Your task to perform on an android device: open chrome privacy settings Image 0: 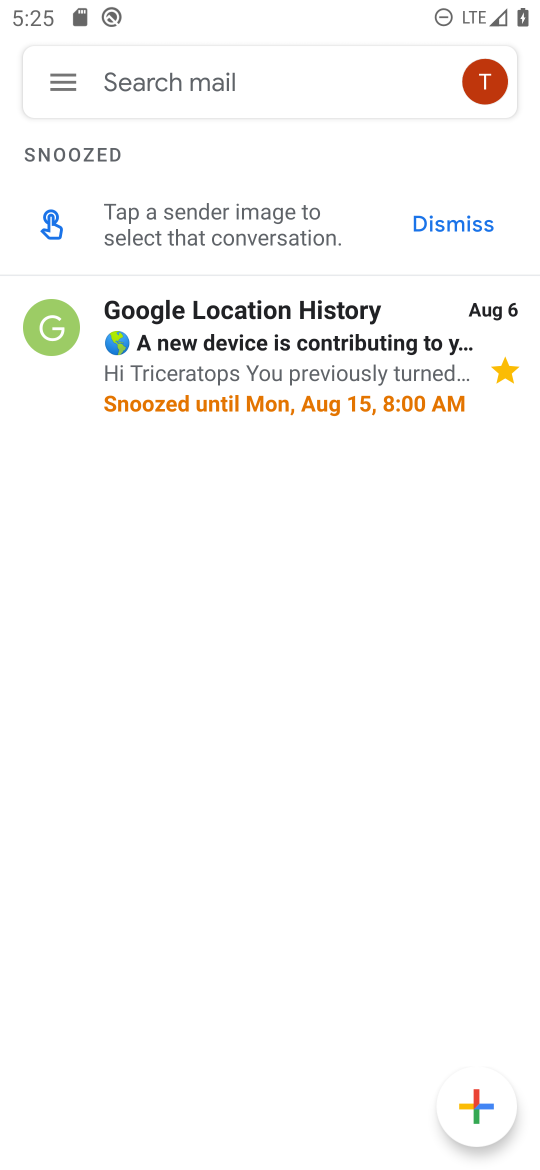
Step 0: press home button
Your task to perform on an android device: open chrome privacy settings Image 1: 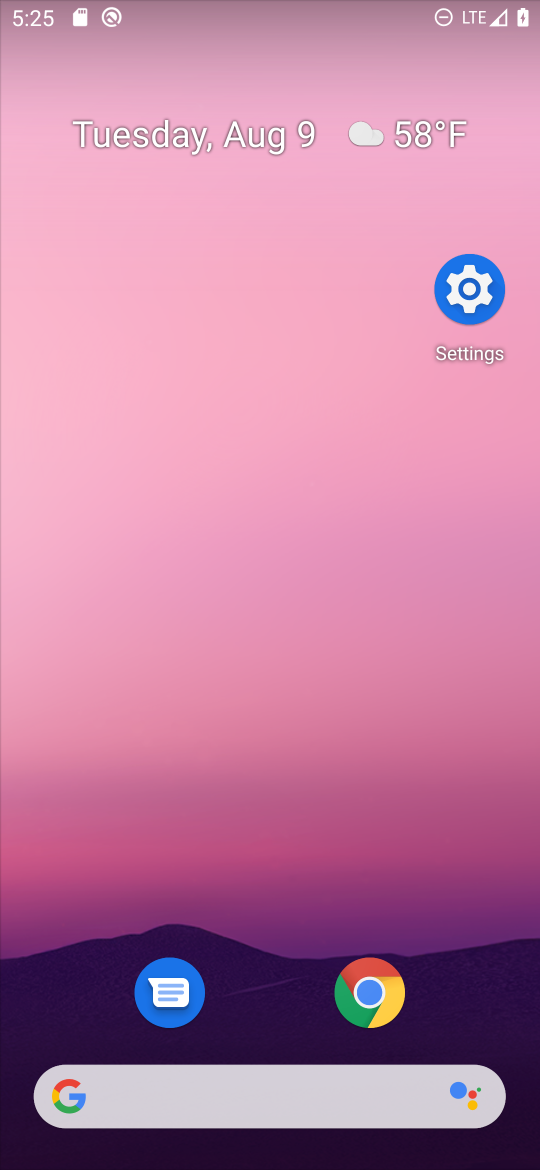
Step 1: drag from (230, 1122) to (230, 156)
Your task to perform on an android device: open chrome privacy settings Image 2: 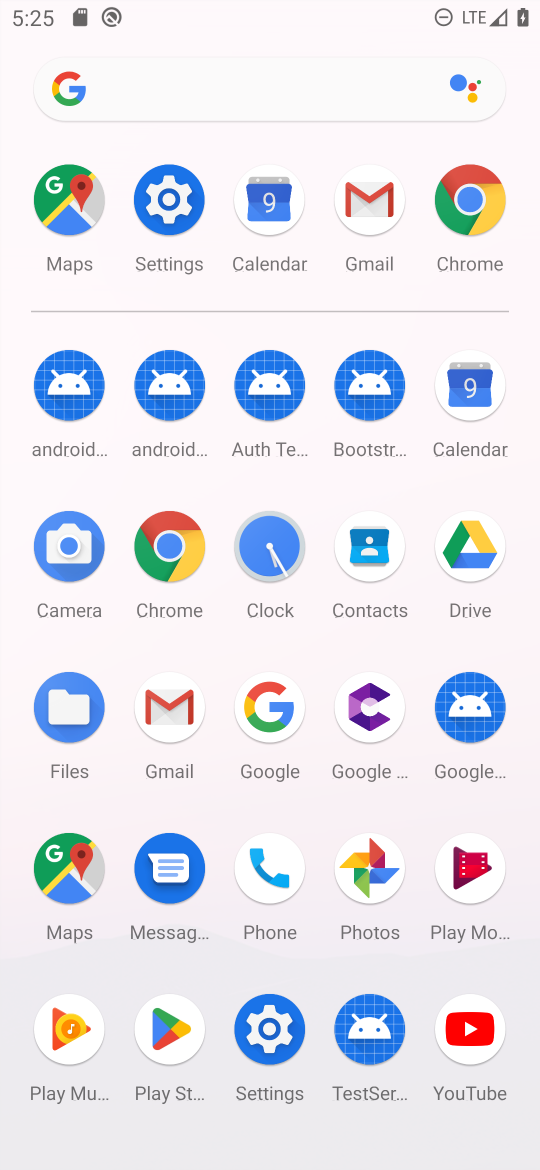
Step 2: click (165, 552)
Your task to perform on an android device: open chrome privacy settings Image 3: 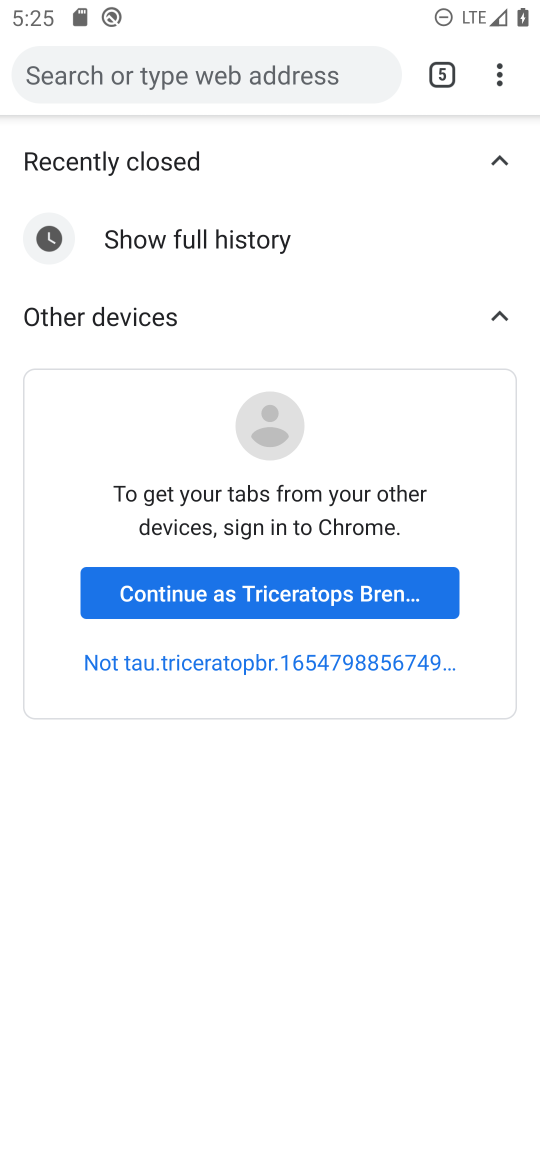
Step 3: click (502, 80)
Your task to perform on an android device: open chrome privacy settings Image 4: 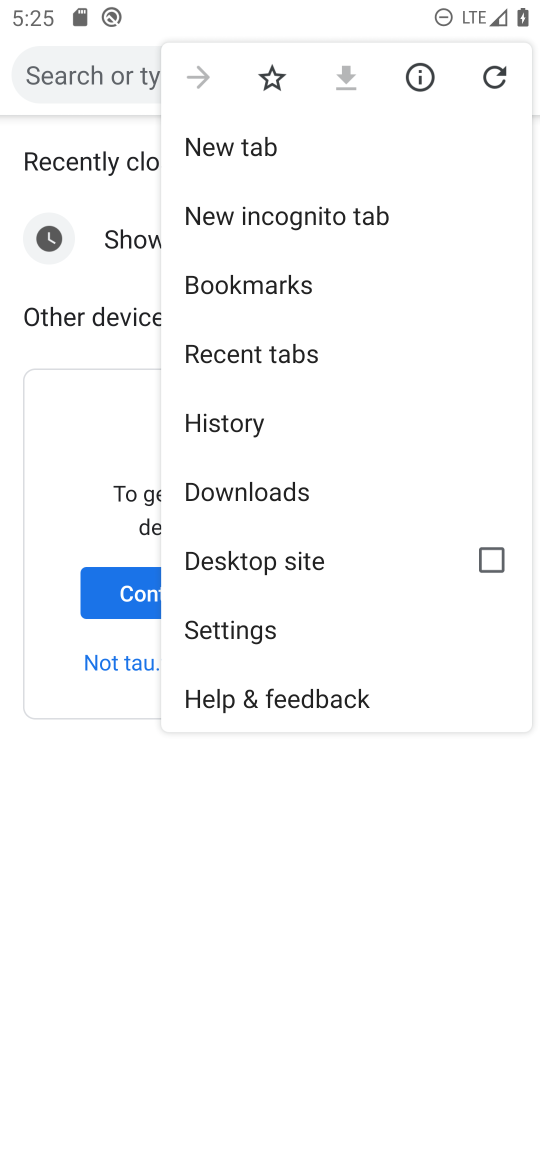
Step 4: click (232, 640)
Your task to perform on an android device: open chrome privacy settings Image 5: 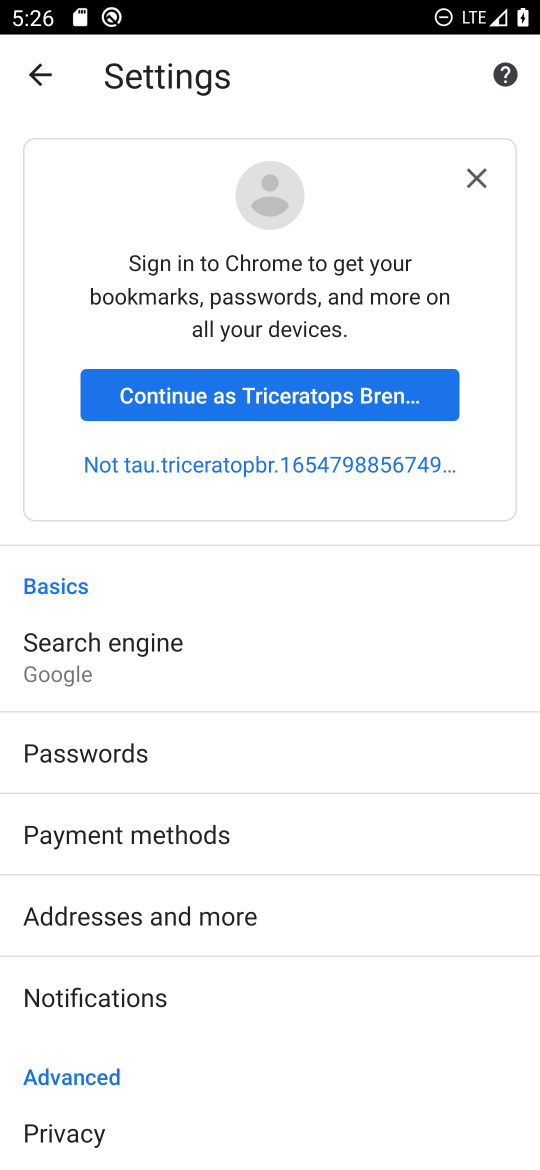
Step 5: click (133, 1138)
Your task to perform on an android device: open chrome privacy settings Image 6: 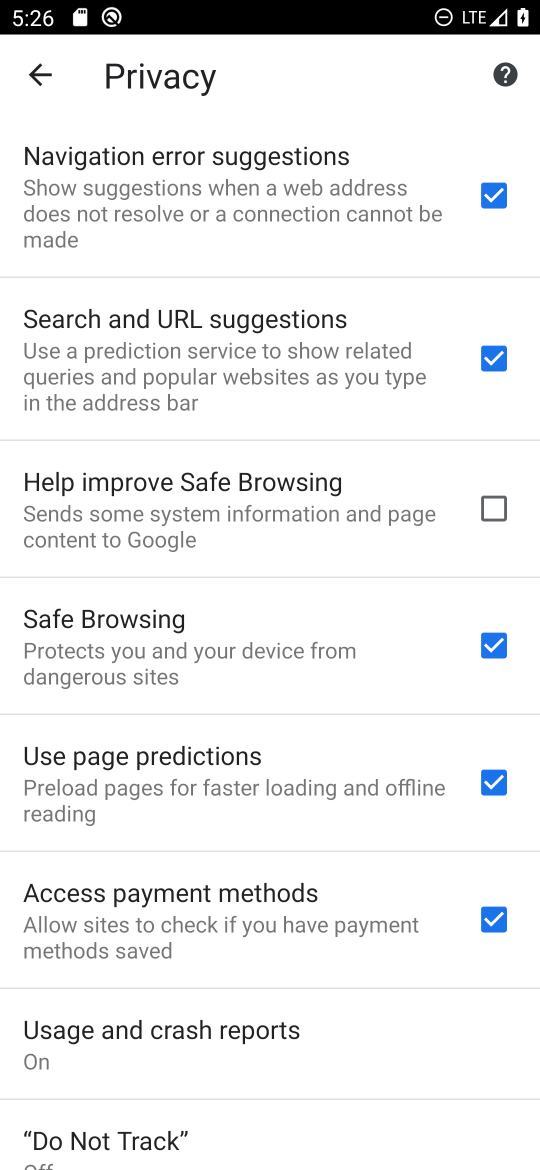
Step 6: task complete